Your task to perform on an android device: open a new tab in the chrome app Image 0: 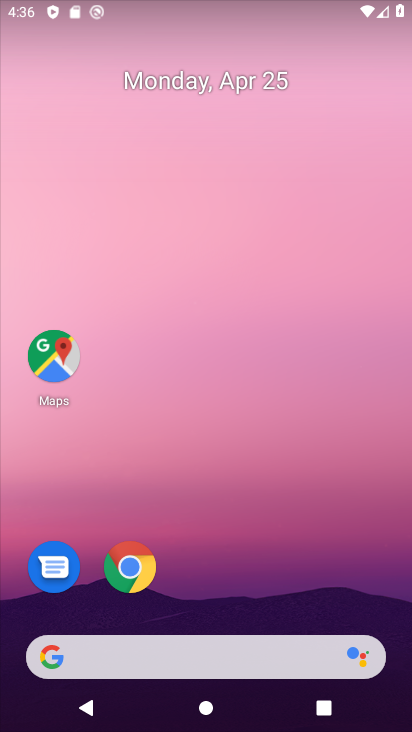
Step 0: click (126, 555)
Your task to perform on an android device: open a new tab in the chrome app Image 1: 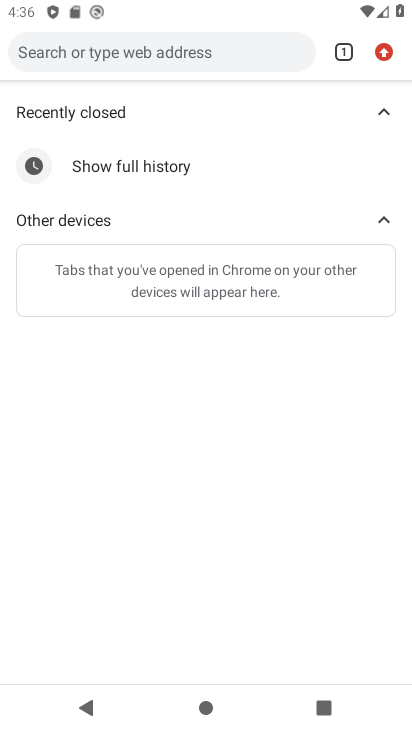
Step 1: click (338, 46)
Your task to perform on an android device: open a new tab in the chrome app Image 2: 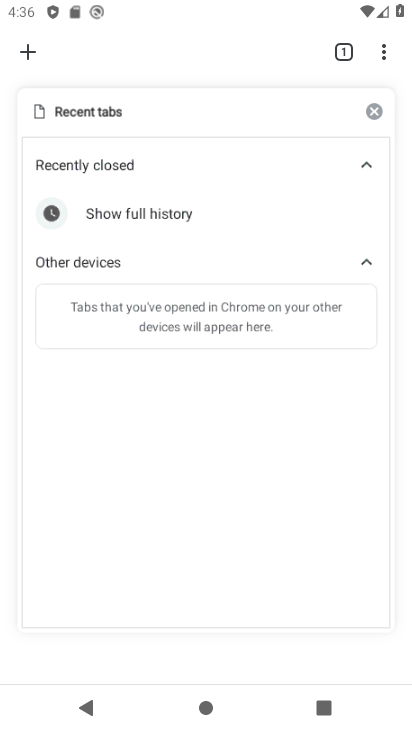
Step 2: click (30, 46)
Your task to perform on an android device: open a new tab in the chrome app Image 3: 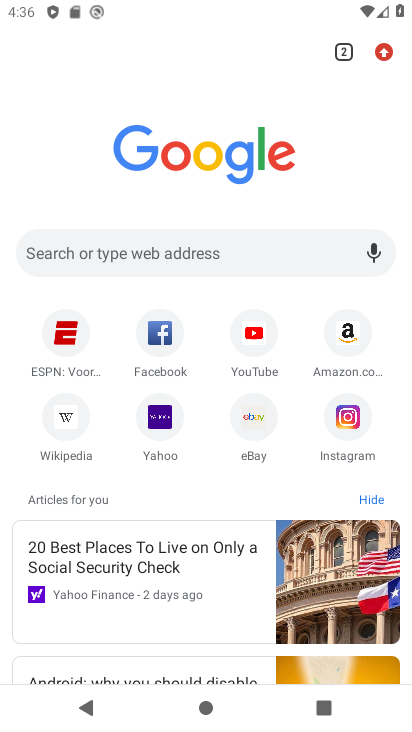
Step 3: task complete